Your task to perform on an android device: Go to calendar. Show me events next week Image 0: 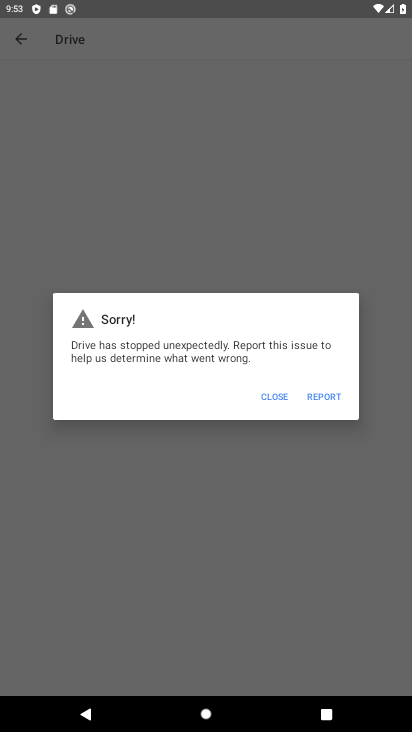
Step 0: press back button
Your task to perform on an android device: Go to calendar. Show me events next week Image 1: 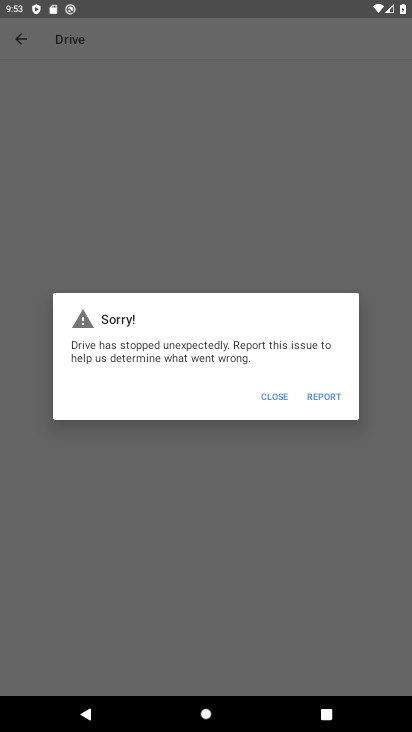
Step 1: press home button
Your task to perform on an android device: Go to calendar. Show me events next week Image 2: 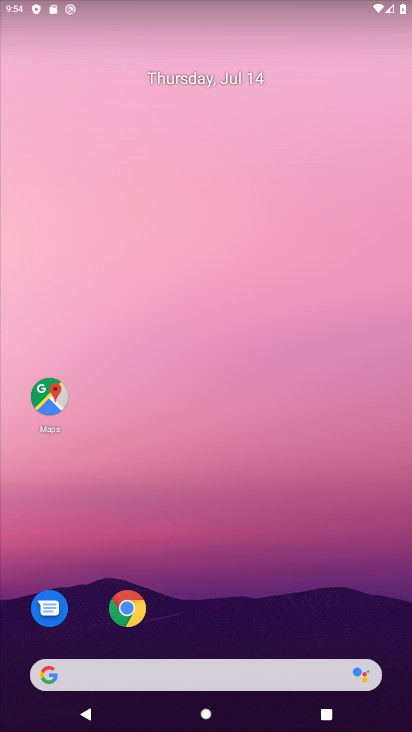
Step 2: drag from (214, 636) to (210, 362)
Your task to perform on an android device: Go to calendar. Show me events next week Image 3: 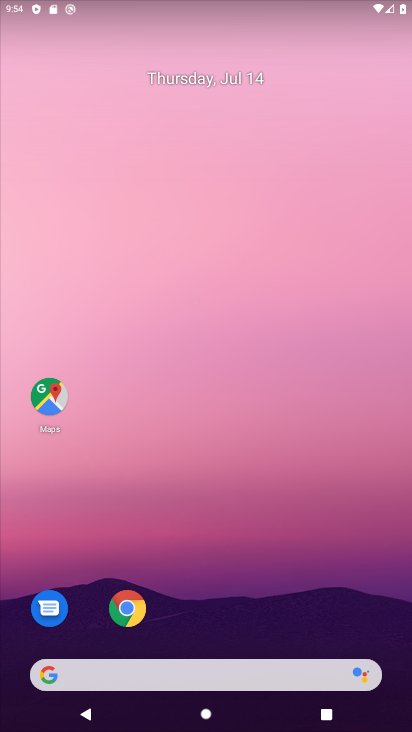
Step 3: drag from (191, 607) to (155, 110)
Your task to perform on an android device: Go to calendar. Show me events next week Image 4: 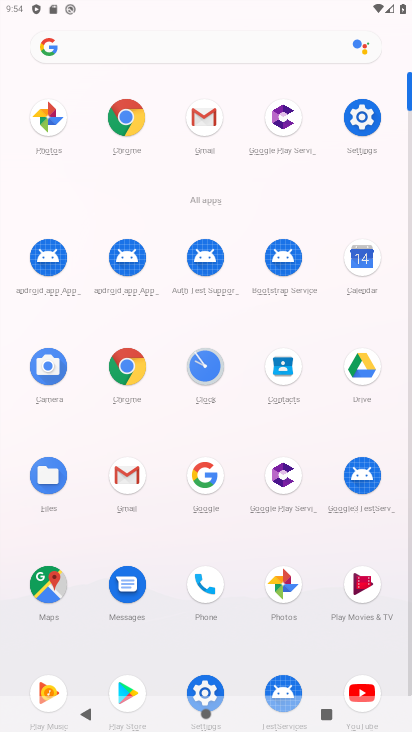
Step 4: click (364, 278)
Your task to perform on an android device: Go to calendar. Show me events next week Image 5: 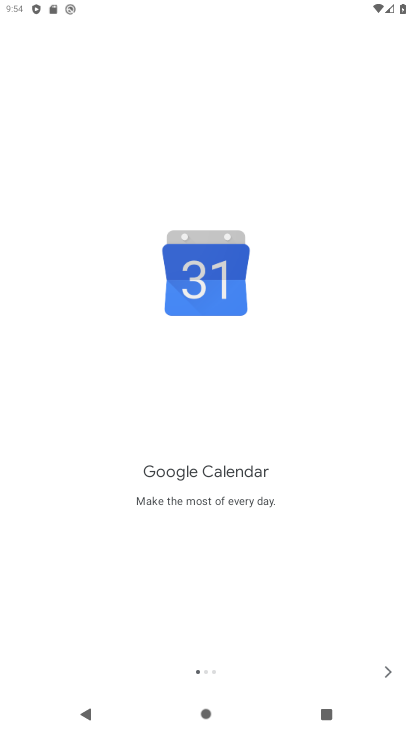
Step 5: click (389, 668)
Your task to perform on an android device: Go to calendar. Show me events next week Image 6: 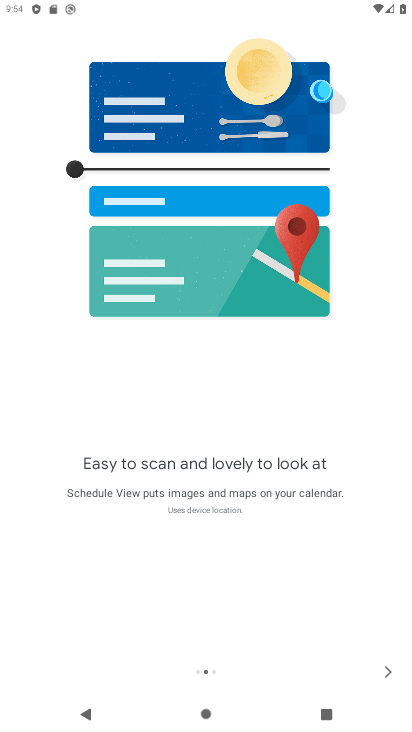
Step 6: click (389, 668)
Your task to perform on an android device: Go to calendar. Show me events next week Image 7: 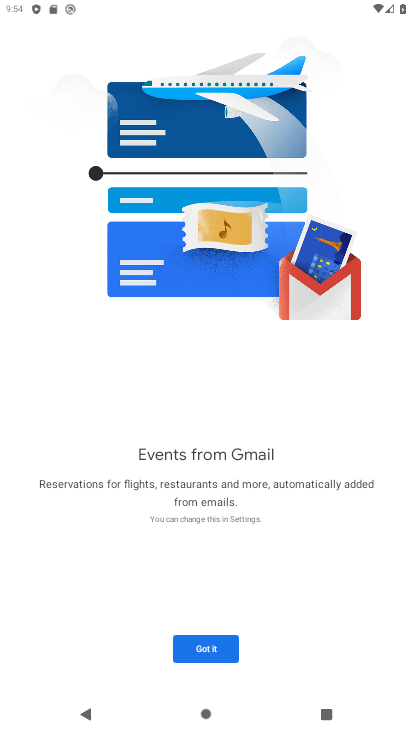
Step 7: click (200, 648)
Your task to perform on an android device: Go to calendar. Show me events next week Image 8: 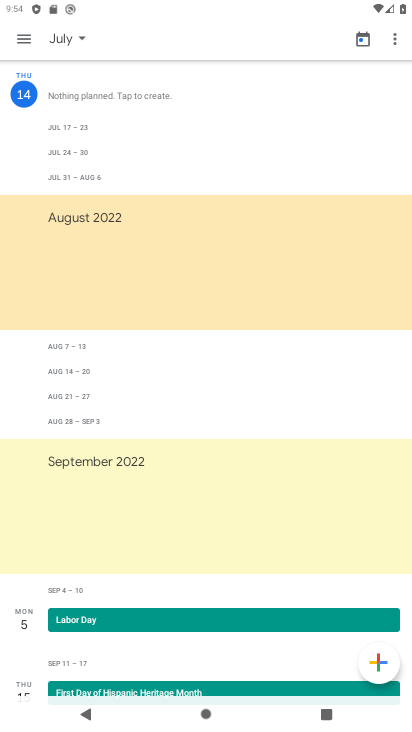
Step 8: click (23, 39)
Your task to perform on an android device: Go to calendar. Show me events next week Image 9: 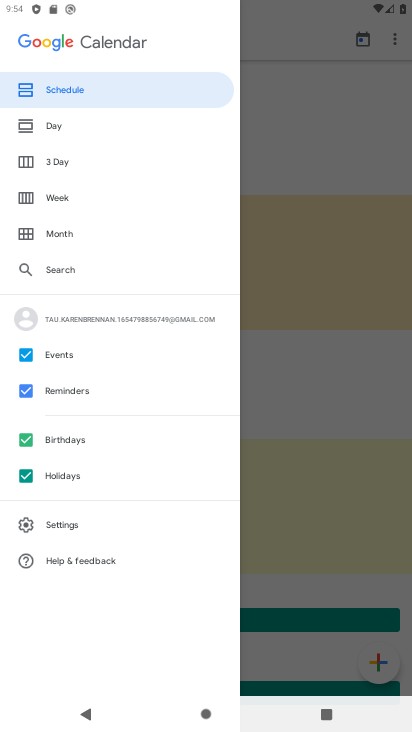
Step 9: click (62, 198)
Your task to perform on an android device: Go to calendar. Show me events next week Image 10: 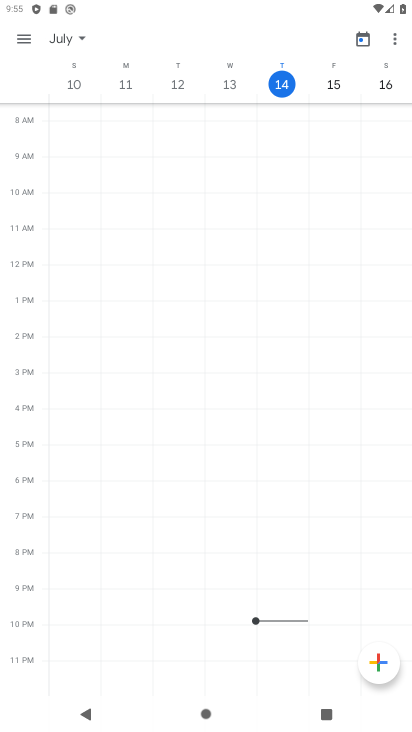
Step 10: click (23, 44)
Your task to perform on an android device: Go to calendar. Show me events next week Image 11: 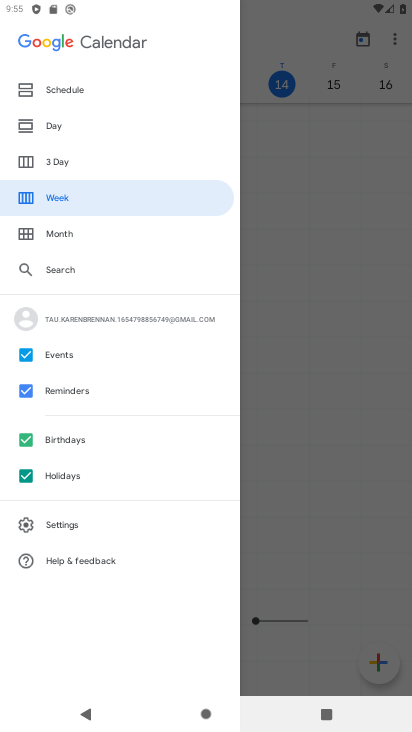
Step 11: click (370, 266)
Your task to perform on an android device: Go to calendar. Show me events next week Image 12: 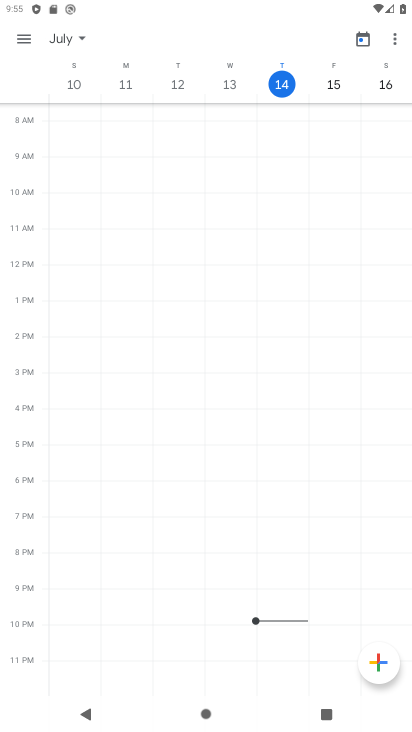
Step 12: click (68, 49)
Your task to perform on an android device: Go to calendar. Show me events next week Image 13: 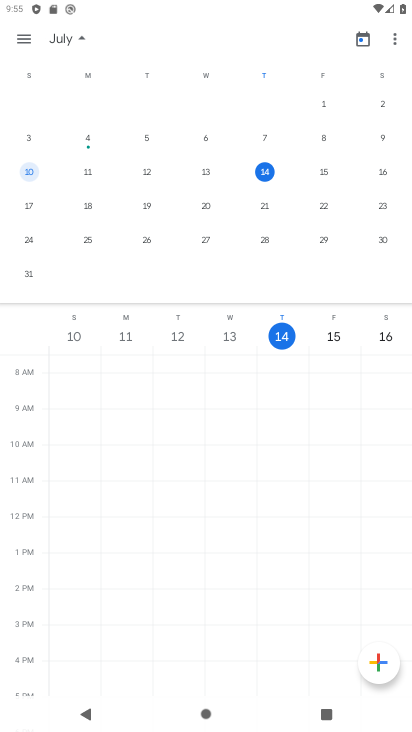
Step 13: click (30, 207)
Your task to perform on an android device: Go to calendar. Show me events next week Image 14: 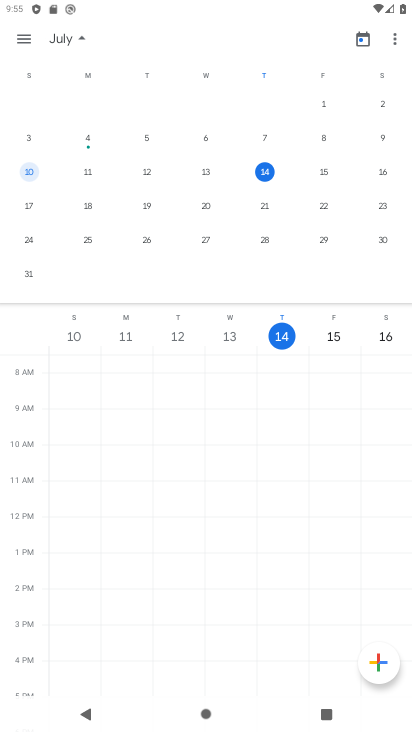
Step 14: click (30, 207)
Your task to perform on an android device: Go to calendar. Show me events next week Image 15: 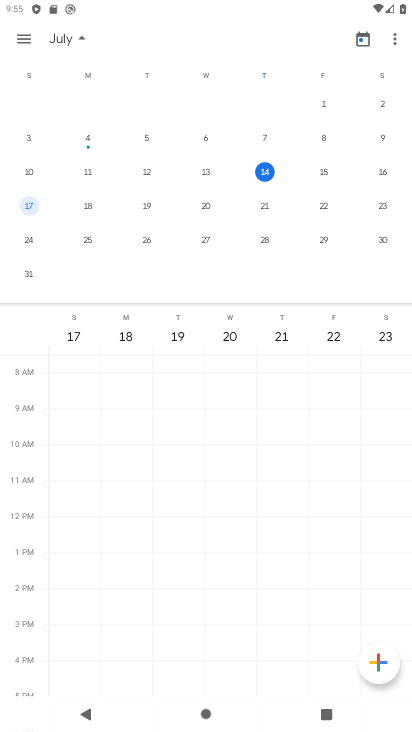
Step 15: task complete